Your task to perform on an android device: add a contact Image 0: 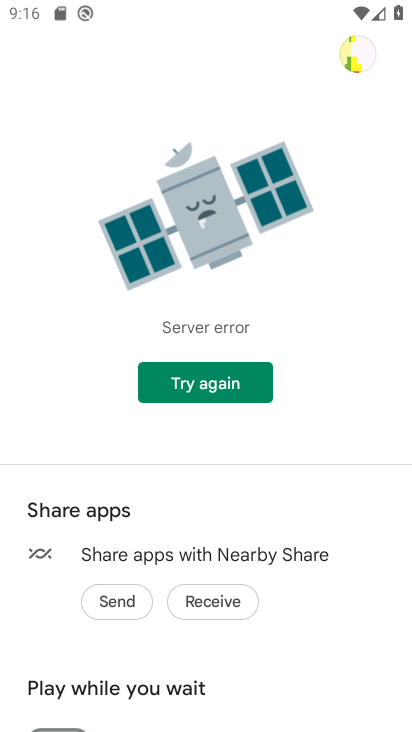
Step 0: press home button
Your task to perform on an android device: add a contact Image 1: 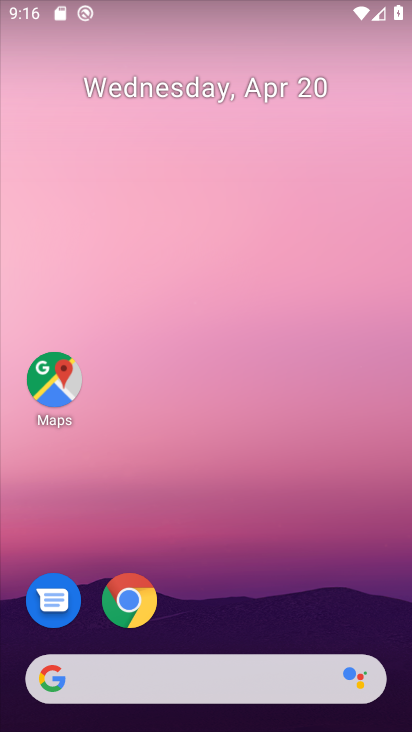
Step 1: drag from (296, 617) to (220, 20)
Your task to perform on an android device: add a contact Image 2: 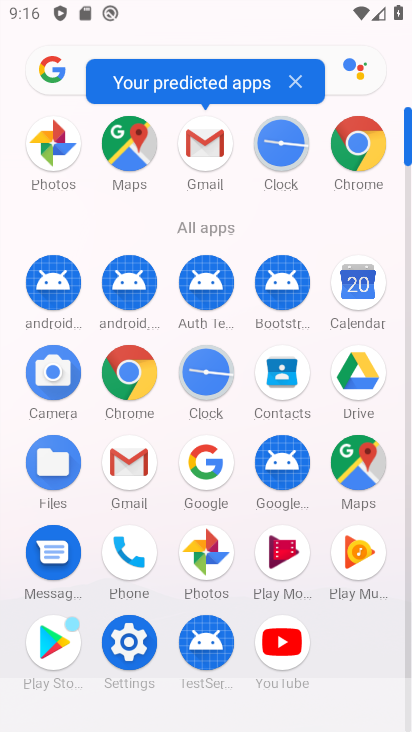
Step 2: click (270, 392)
Your task to perform on an android device: add a contact Image 3: 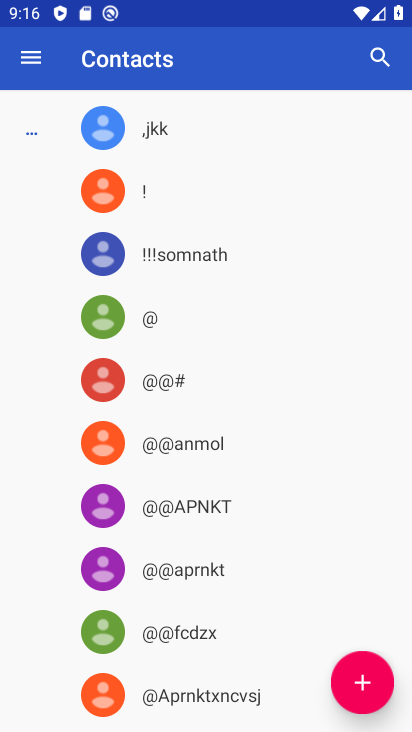
Step 3: click (366, 684)
Your task to perform on an android device: add a contact Image 4: 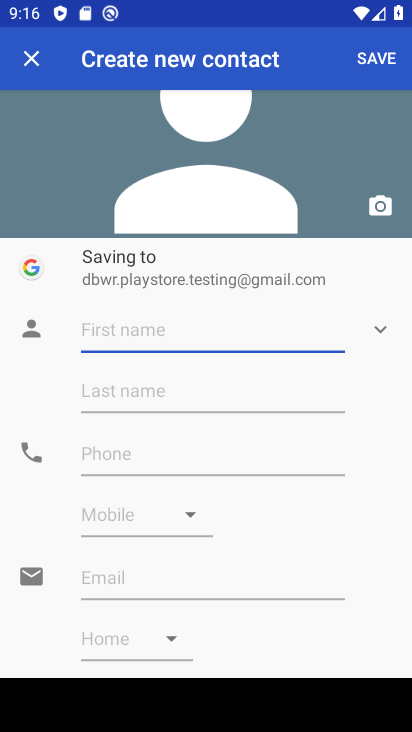
Step 4: type "sony"
Your task to perform on an android device: add a contact Image 5: 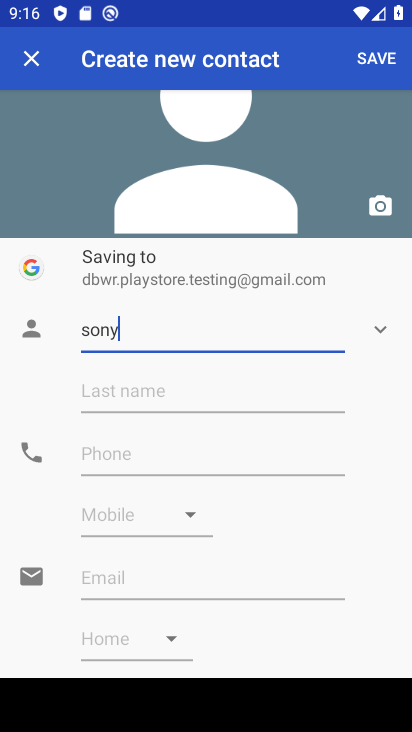
Step 5: click (230, 450)
Your task to perform on an android device: add a contact Image 6: 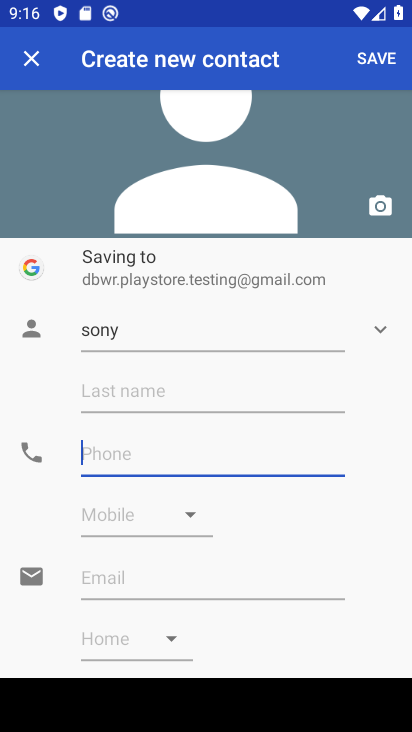
Step 6: type "345623456"
Your task to perform on an android device: add a contact Image 7: 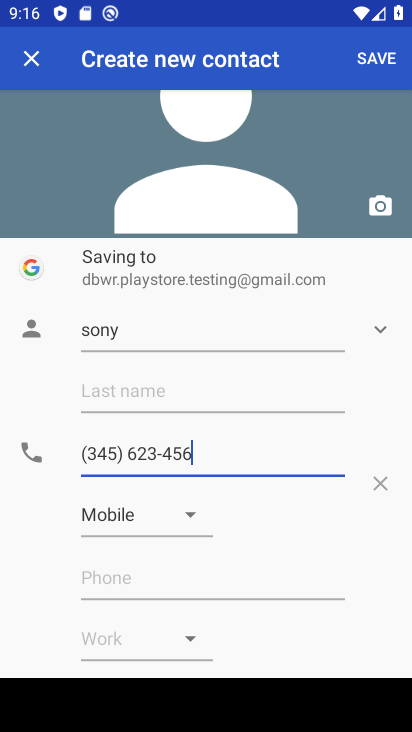
Step 7: click (379, 70)
Your task to perform on an android device: add a contact Image 8: 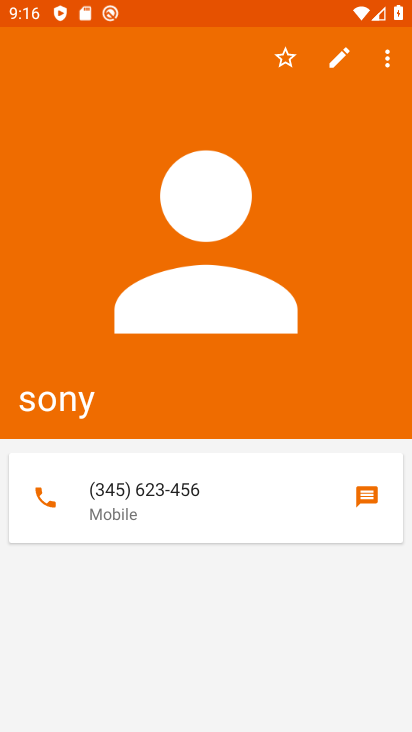
Step 8: task complete